Your task to perform on an android device: turn on javascript in the chrome app Image 0: 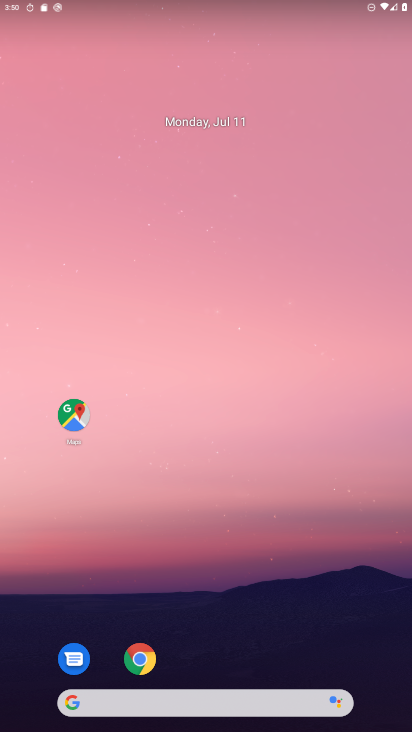
Step 0: drag from (153, 687) to (130, 179)
Your task to perform on an android device: turn on javascript in the chrome app Image 1: 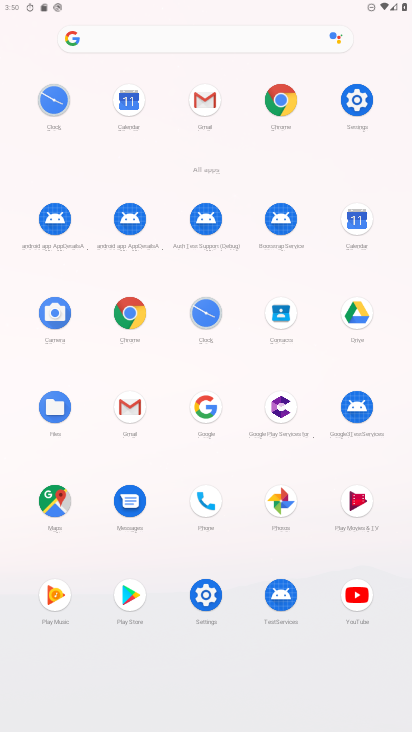
Step 1: click (283, 101)
Your task to perform on an android device: turn on javascript in the chrome app Image 2: 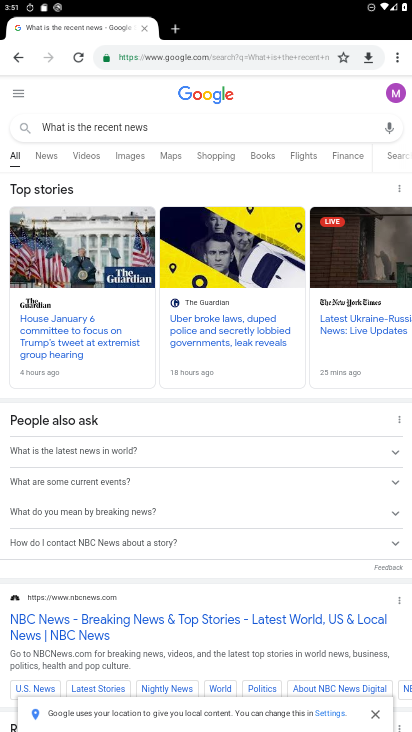
Step 2: click (391, 56)
Your task to perform on an android device: turn on javascript in the chrome app Image 3: 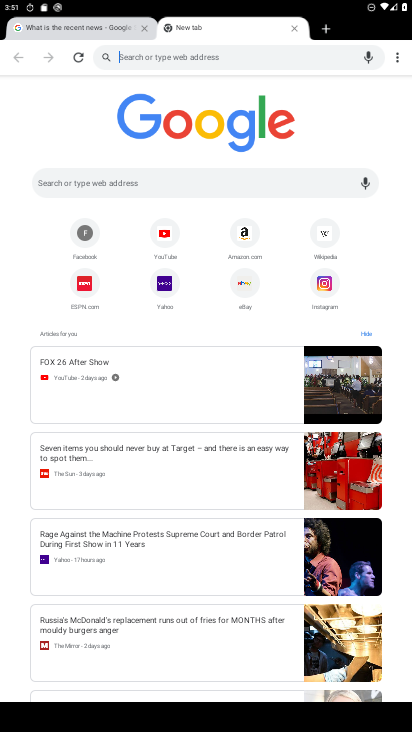
Step 3: click (391, 48)
Your task to perform on an android device: turn on javascript in the chrome app Image 4: 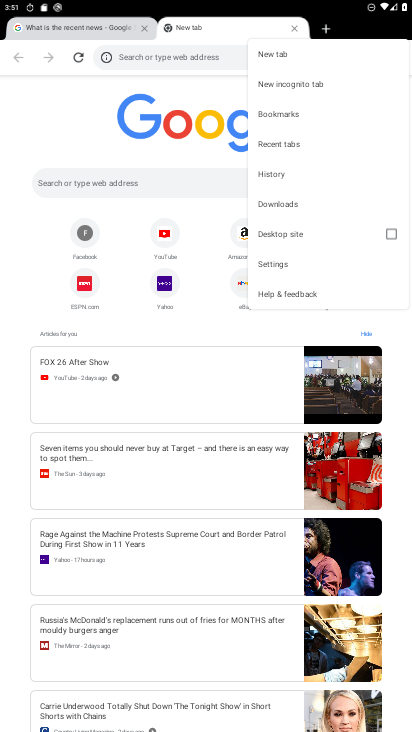
Step 4: click (299, 261)
Your task to perform on an android device: turn on javascript in the chrome app Image 5: 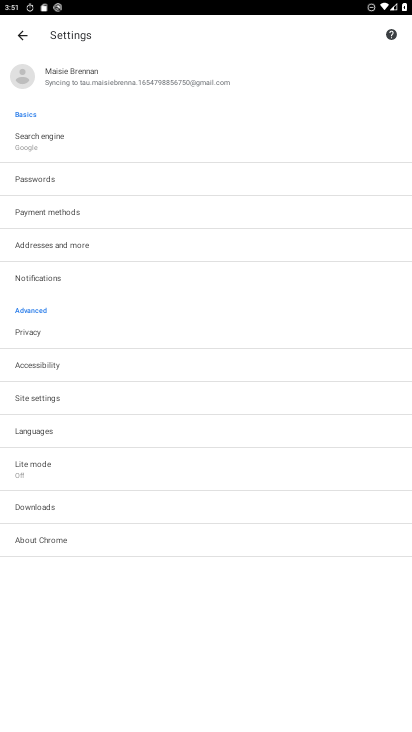
Step 5: click (79, 393)
Your task to perform on an android device: turn on javascript in the chrome app Image 6: 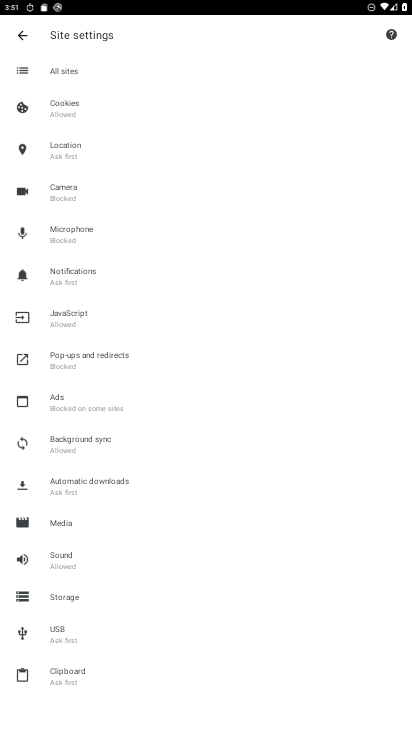
Step 6: click (108, 323)
Your task to perform on an android device: turn on javascript in the chrome app Image 7: 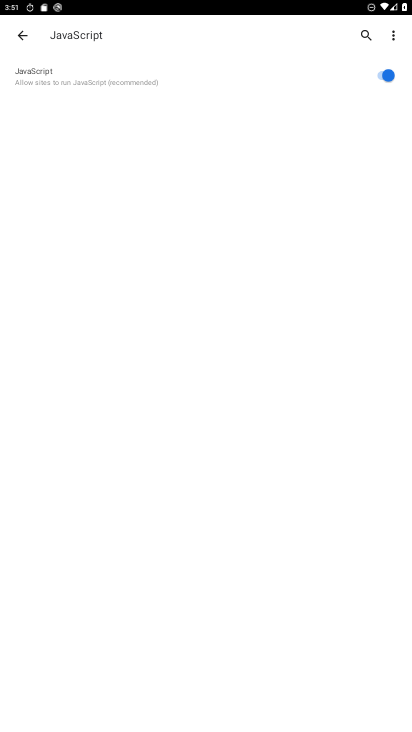
Step 7: task complete